Your task to perform on an android device: turn off data saver in the chrome app Image 0: 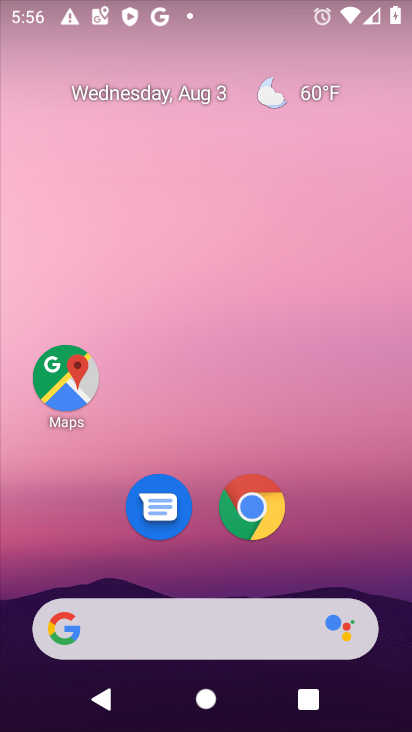
Step 0: drag from (334, 531) to (330, 39)
Your task to perform on an android device: turn off data saver in the chrome app Image 1: 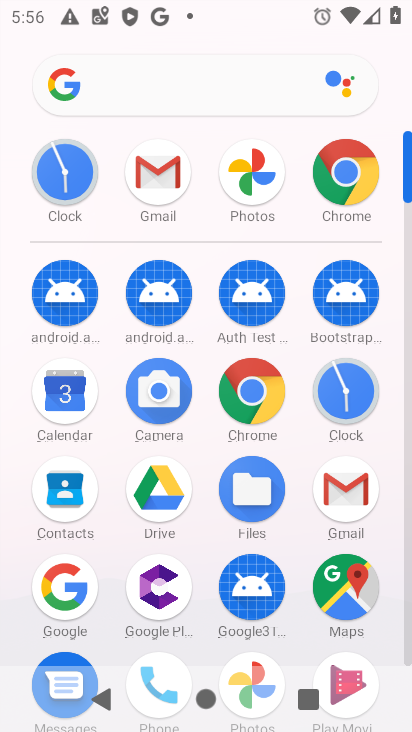
Step 1: click (246, 402)
Your task to perform on an android device: turn off data saver in the chrome app Image 2: 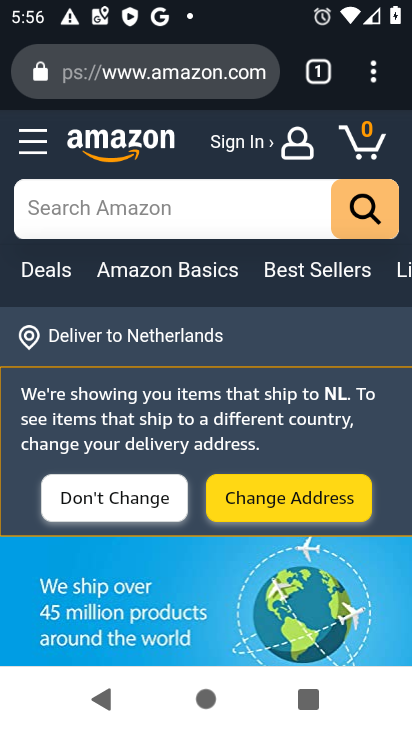
Step 2: click (372, 61)
Your task to perform on an android device: turn off data saver in the chrome app Image 3: 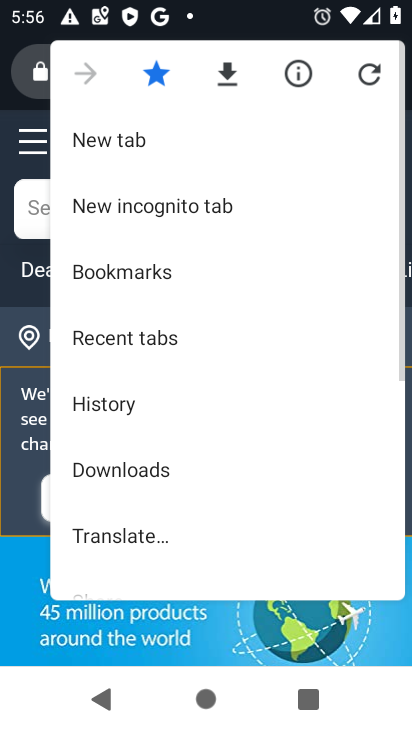
Step 3: drag from (178, 558) to (261, 112)
Your task to perform on an android device: turn off data saver in the chrome app Image 4: 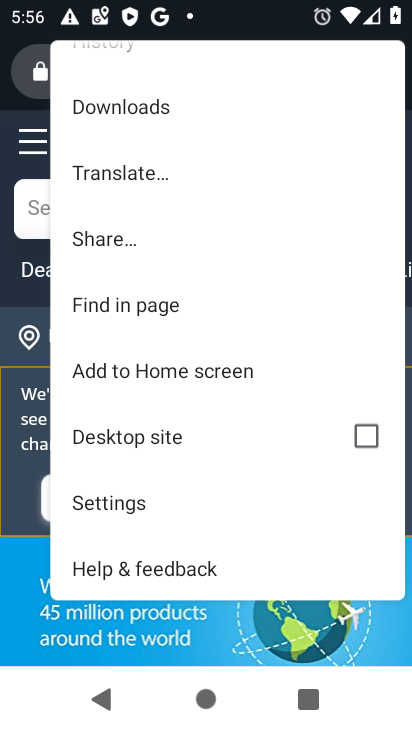
Step 4: click (112, 504)
Your task to perform on an android device: turn off data saver in the chrome app Image 5: 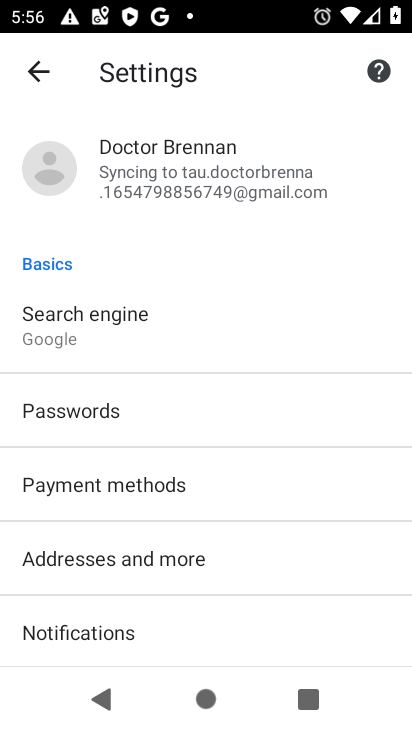
Step 5: drag from (160, 612) to (267, 7)
Your task to perform on an android device: turn off data saver in the chrome app Image 6: 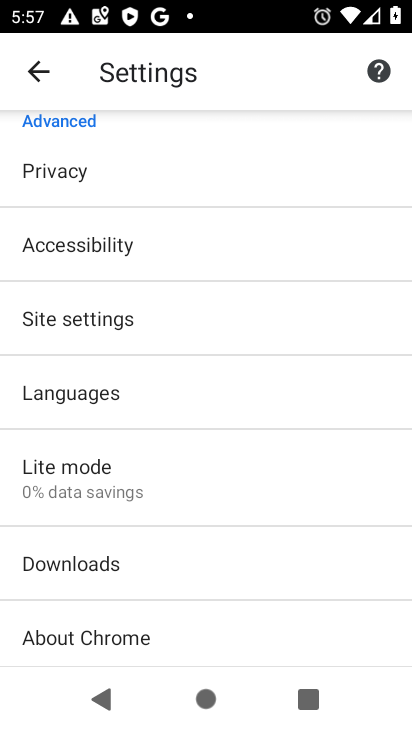
Step 6: drag from (194, 571) to (241, 215)
Your task to perform on an android device: turn off data saver in the chrome app Image 7: 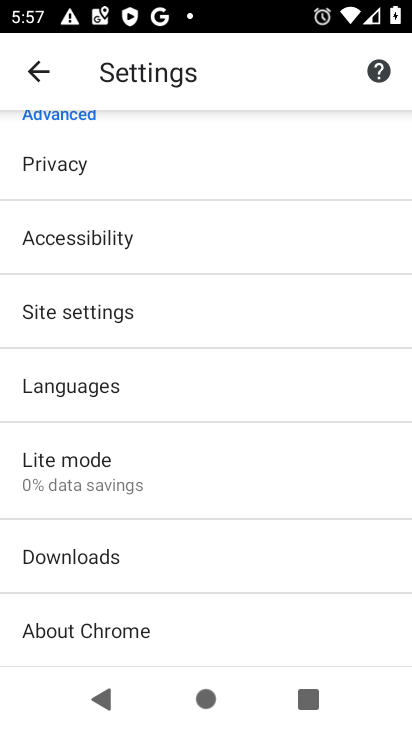
Step 7: click (66, 478)
Your task to perform on an android device: turn off data saver in the chrome app Image 8: 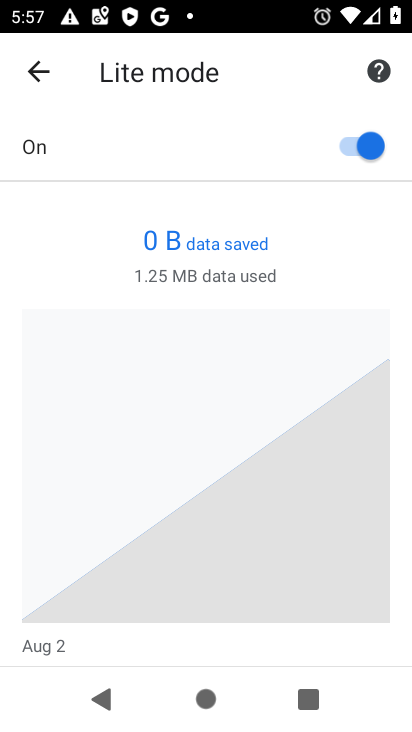
Step 8: click (346, 142)
Your task to perform on an android device: turn off data saver in the chrome app Image 9: 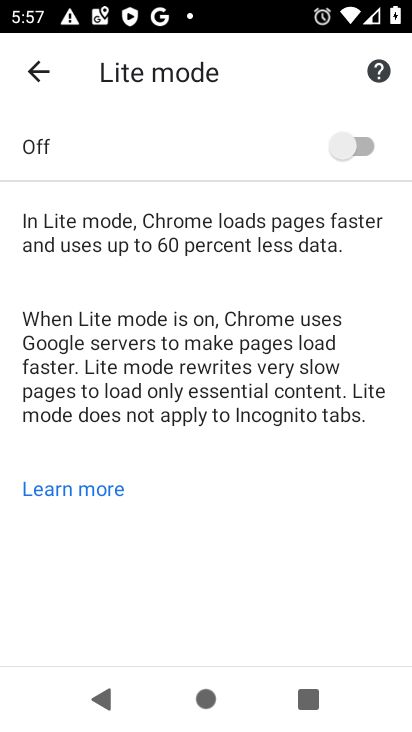
Step 9: task complete